Your task to perform on an android device: Open privacy settings Image 0: 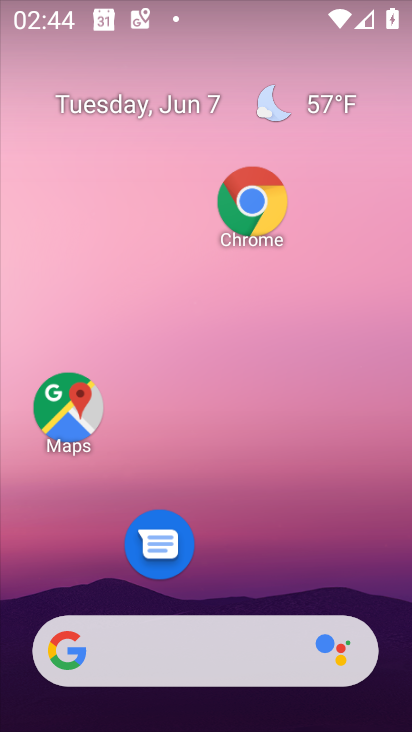
Step 0: drag from (262, 580) to (258, 282)
Your task to perform on an android device: Open privacy settings Image 1: 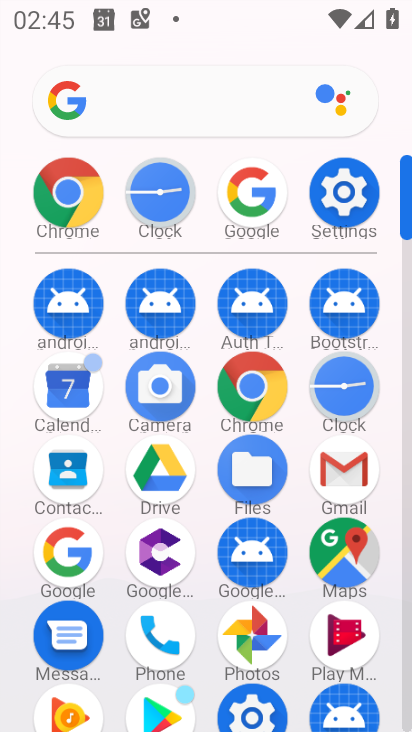
Step 1: click (347, 189)
Your task to perform on an android device: Open privacy settings Image 2: 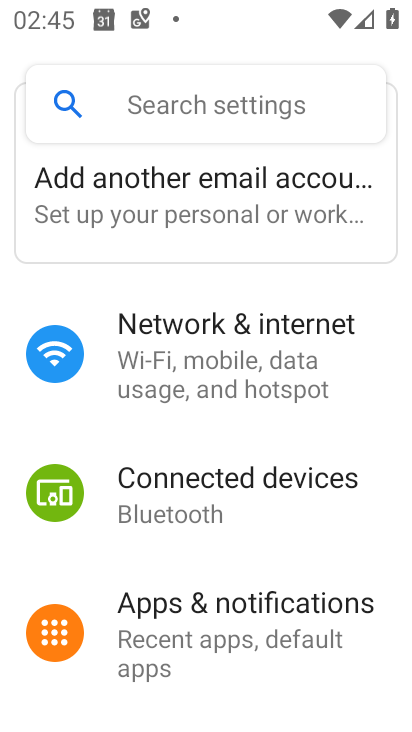
Step 2: drag from (167, 624) to (226, 288)
Your task to perform on an android device: Open privacy settings Image 3: 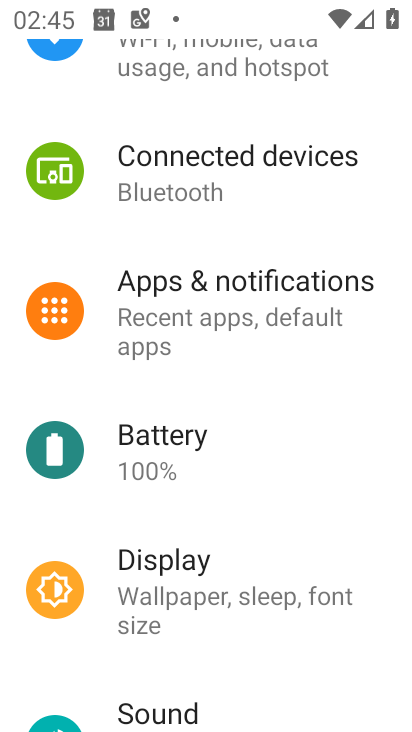
Step 3: drag from (161, 683) to (220, 357)
Your task to perform on an android device: Open privacy settings Image 4: 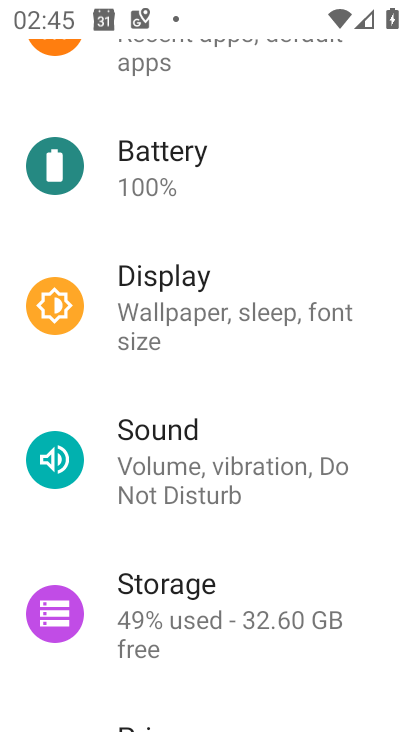
Step 4: drag from (184, 453) to (229, 222)
Your task to perform on an android device: Open privacy settings Image 5: 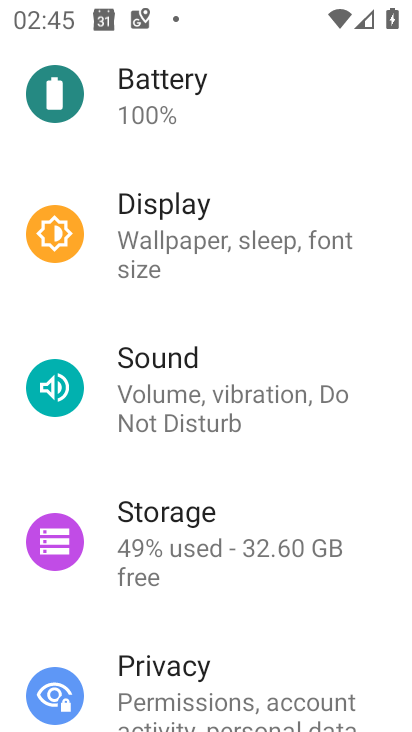
Step 5: click (155, 665)
Your task to perform on an android device: Open privacy settings Image 6: 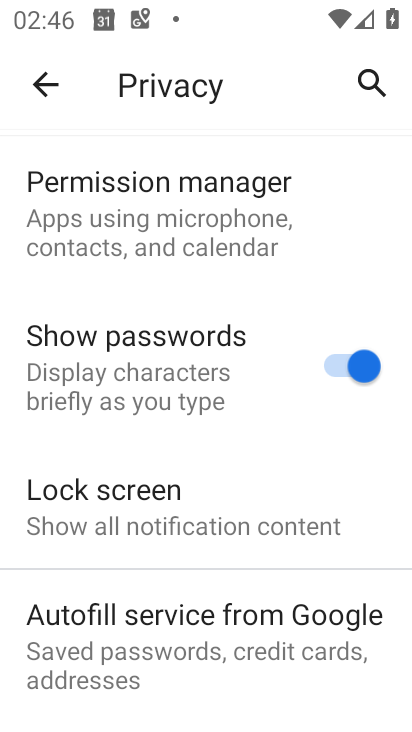
Step 6: task complete